Your task to perform on an android device: change your default location settings in chrome Image 0: 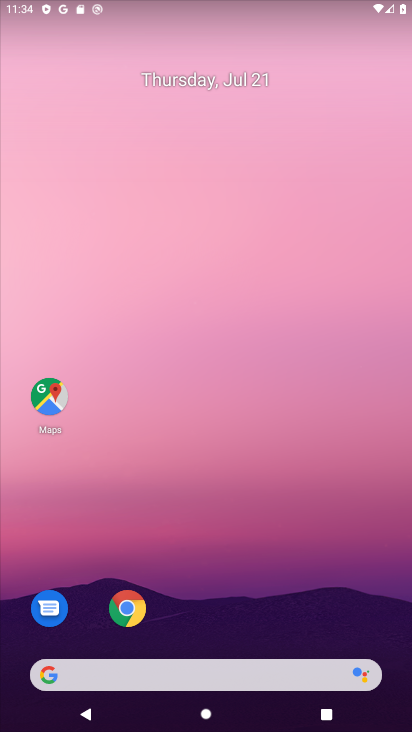
Step 0: press home button
Your task to perform on an android device: change your default location settings in chrome Image 1: 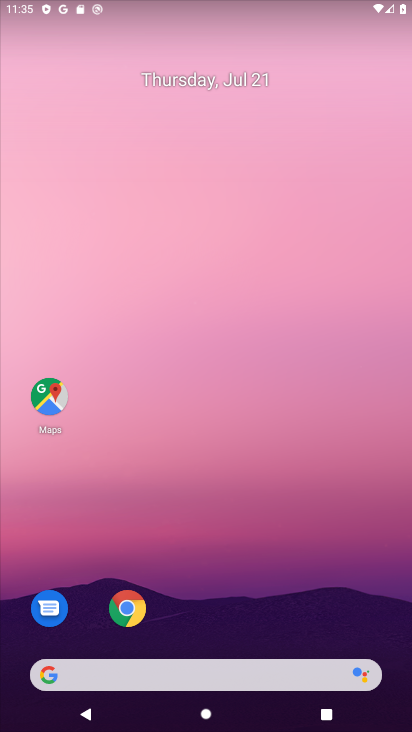
Step 1: click (125, 599)
Your task to perform on an android device: change your default location settings in chrome Image 2: 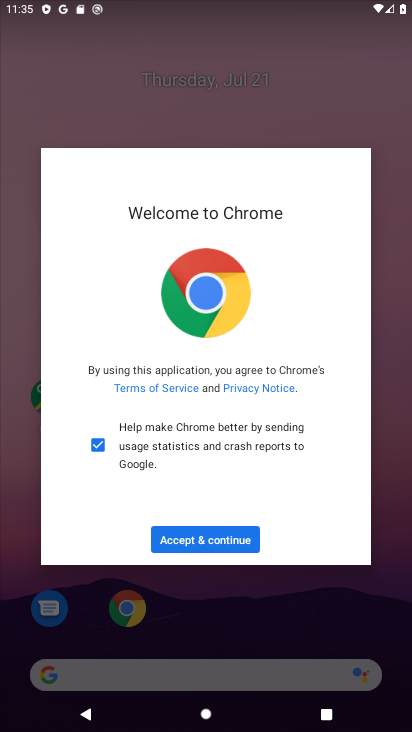
Step 2: click (203, 537)
Your task to perform on an android device: change your default location settings in chrome Image 3: 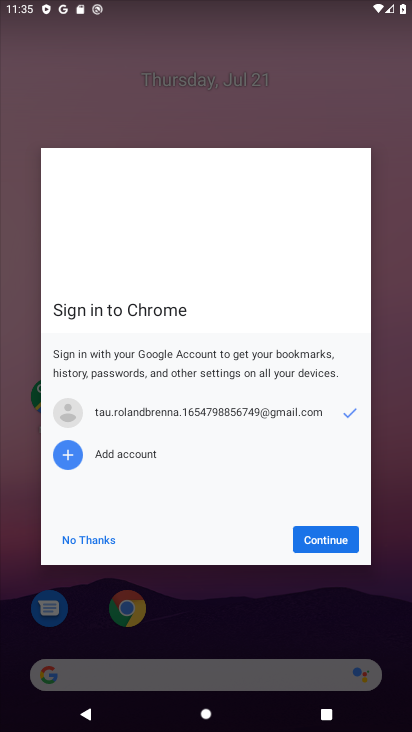
Step 3: click (317, 543)
Your task to perform on an android device: change your default location settings in chrome Image 4: 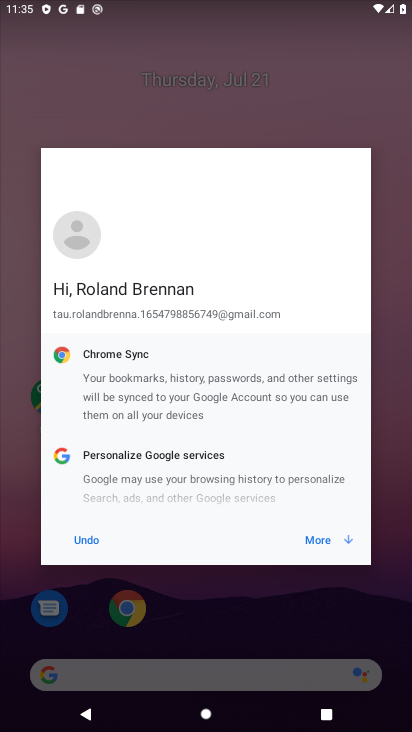
Step 4: click (324, 536)
Your task to perform on an android device: change your default location settings in chrome Image 5: 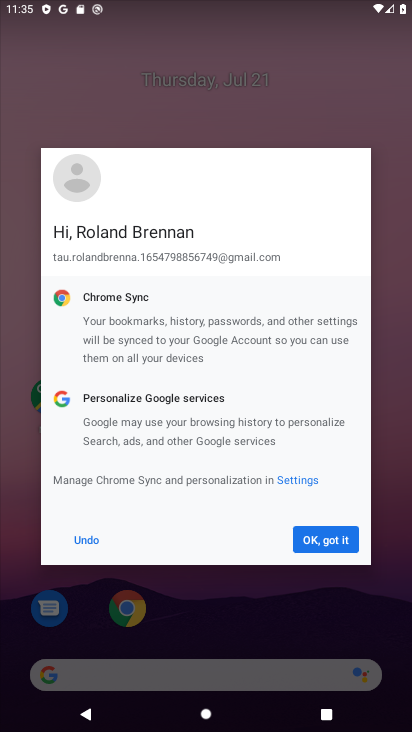
Step 5: click (330, 540)
Your task to perform on an android device: change your default location settings in chrome Image 6: 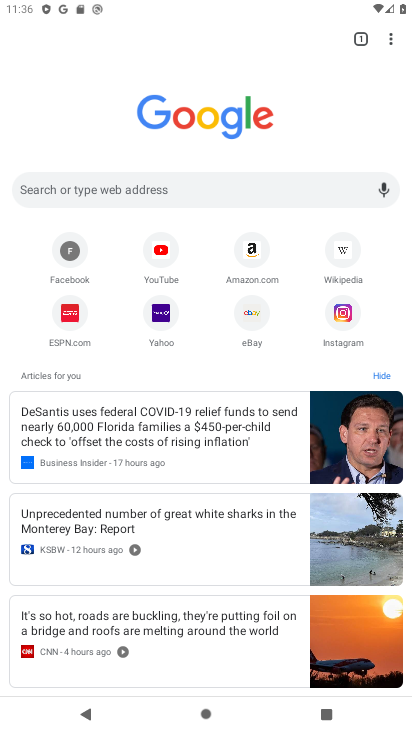
Step 6: click (386, 33)
Your task to perform on an android device: change your default location settings in chrome Image 7: 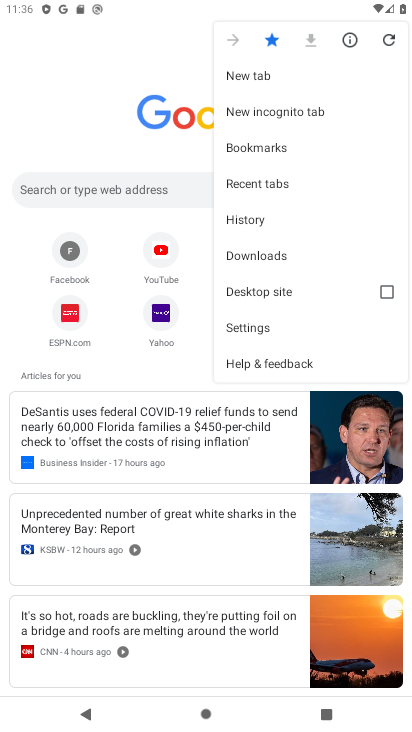
Step 7: click (270, 321)
Your task to perform on an android device: change your default location settings in chrome Image 8: 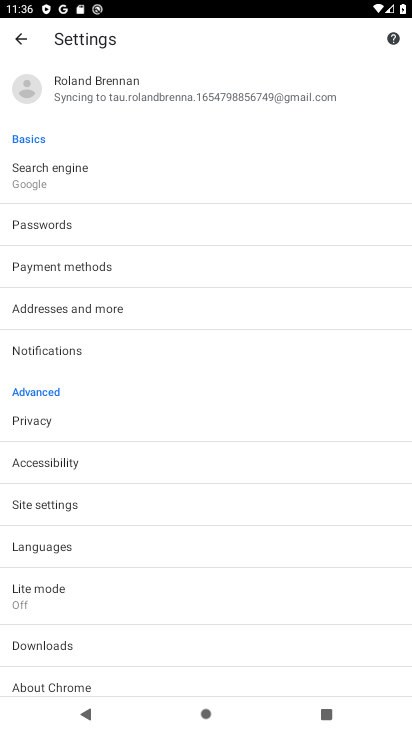
Step 8: click (73, 500)
Your task to perform on an android device: change your default location settings in chrome Image 9: 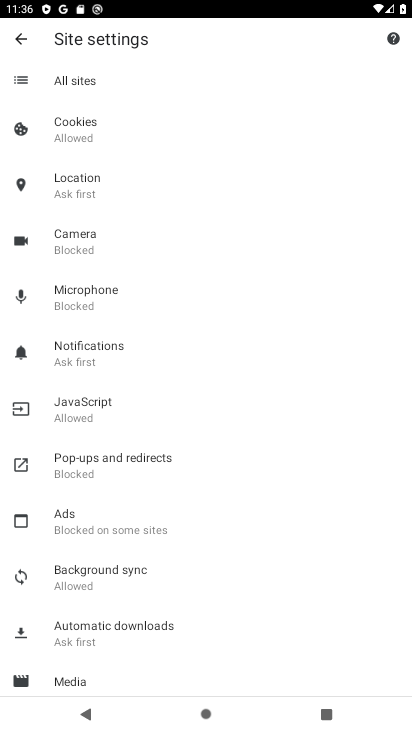
Step 9: click (102, 178)
Your task to perform on an android device: change your default location settings in chrome Image 10: 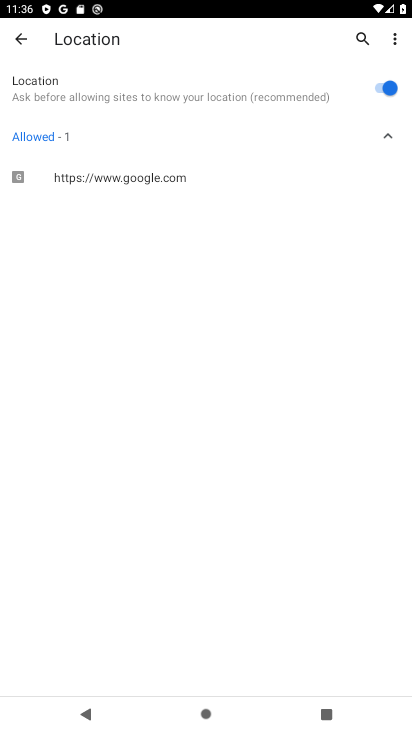
Step 10: task complete